Your task to perform on an android device: Go to wifi settings Image 0: 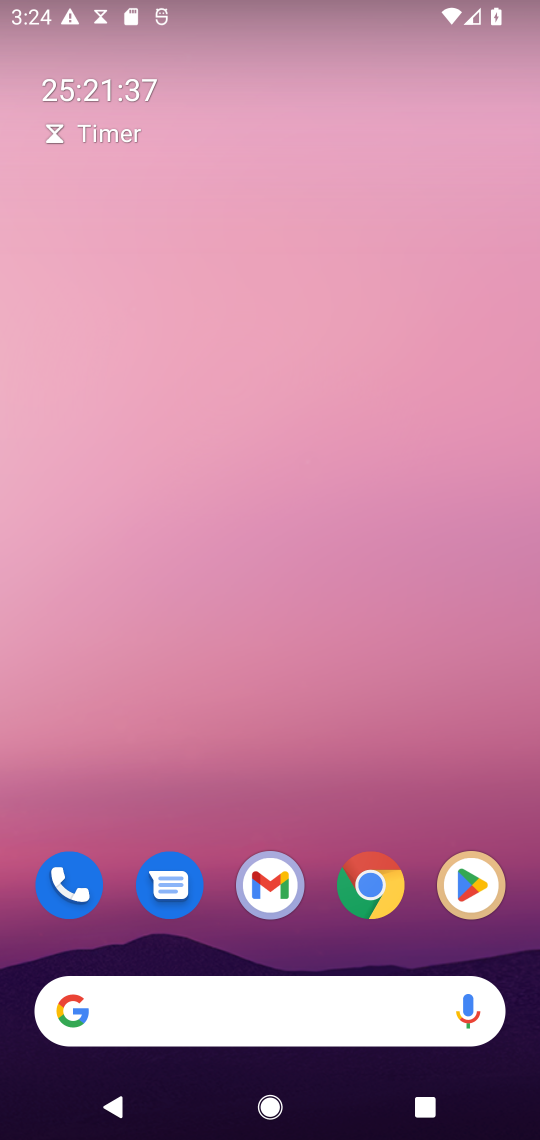
Step 0: drag from (225, 889) to (497, 36)
Your task to perform on an android device: Go to wifi settings Image 1: 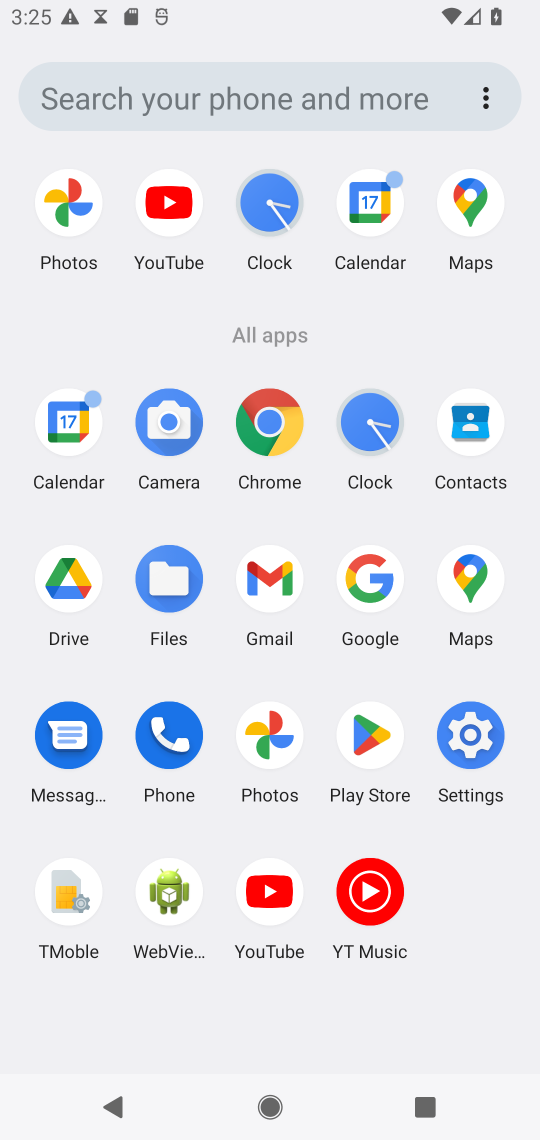
Step 1: click (451, 733)
Your task to perform on an android device: Go to wifi settings Image 2: 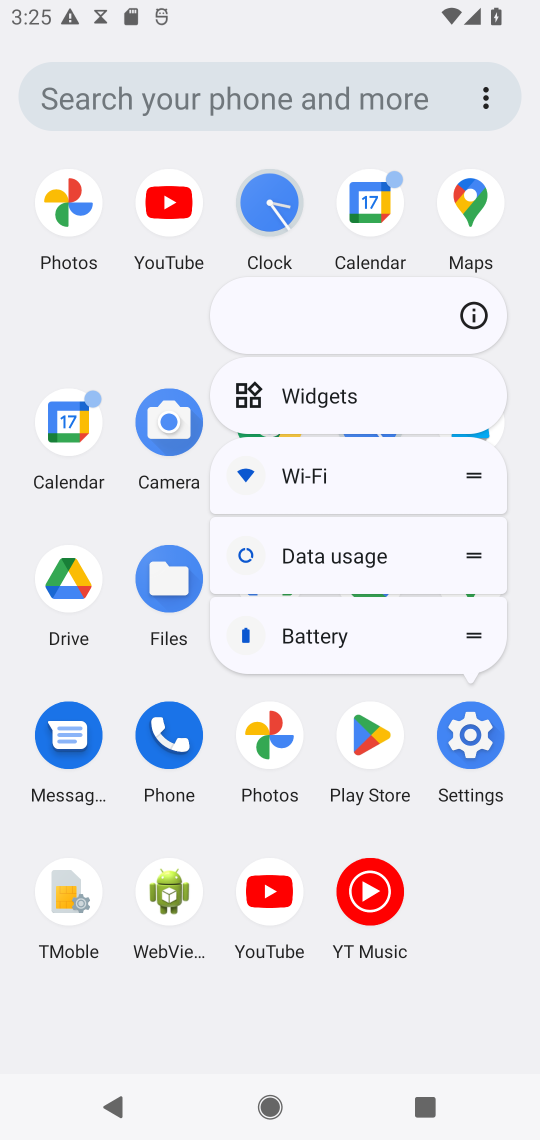
Step 2: click (457, 720)
Your task to perform on an android device: Go to wifi settings Image 3: 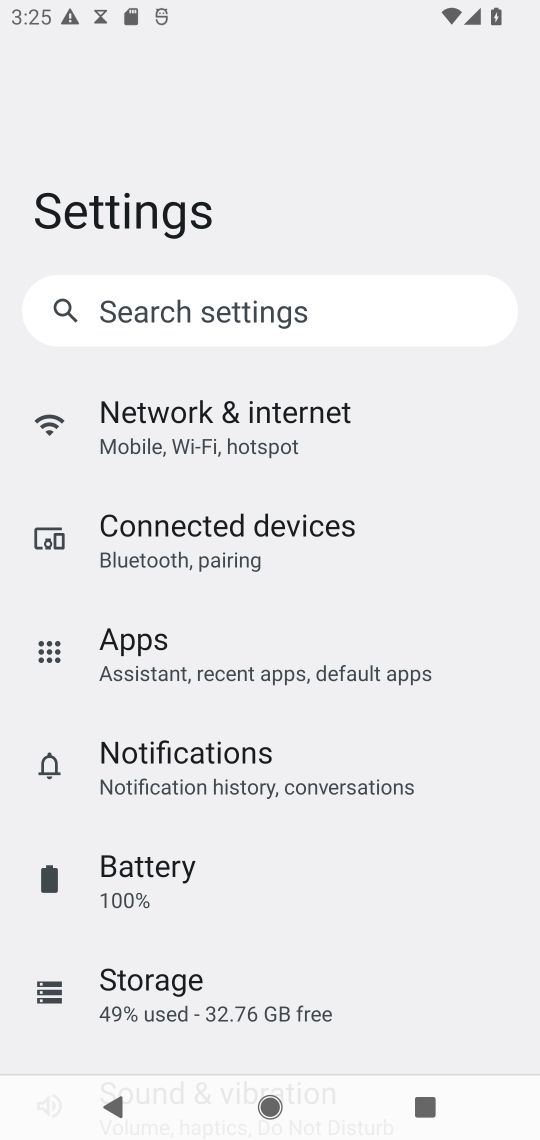
Step 3: click (137, 430)
Your task to perform on an android device: Go to wifi settings Image 4: 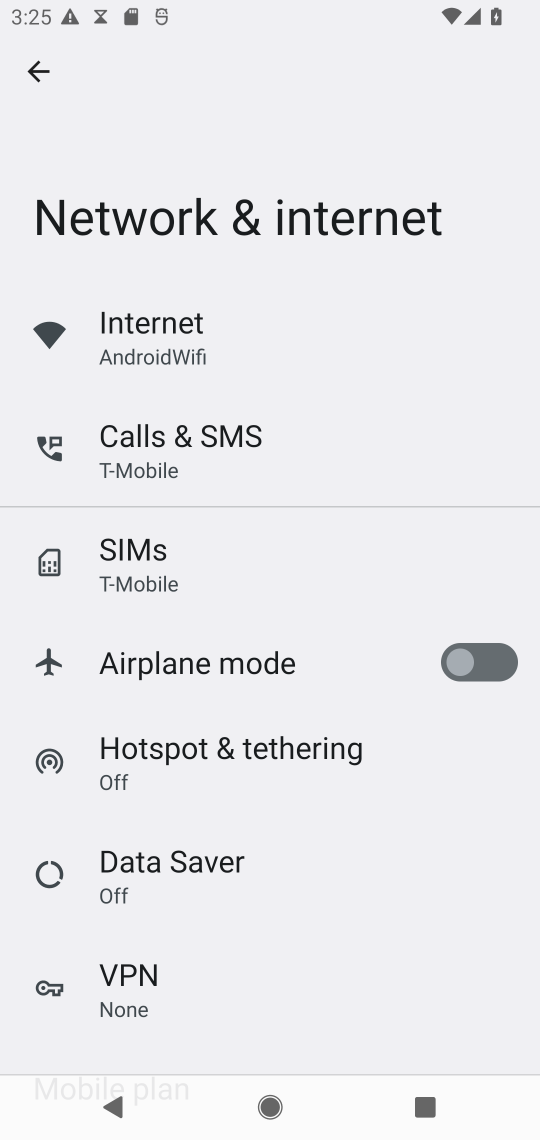
Step 4: click (189, 348)
Your task to perform on an android device: Go to wifi settings Image 5: 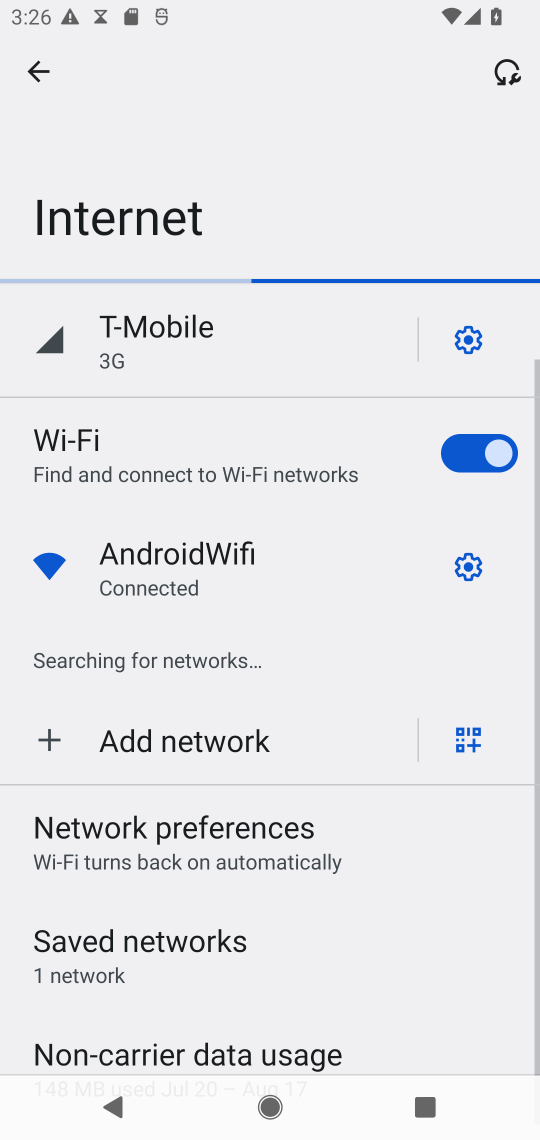
Step 5: click (179, 471)
Your task to perform on an android device: Go to wifi settings Image 6: 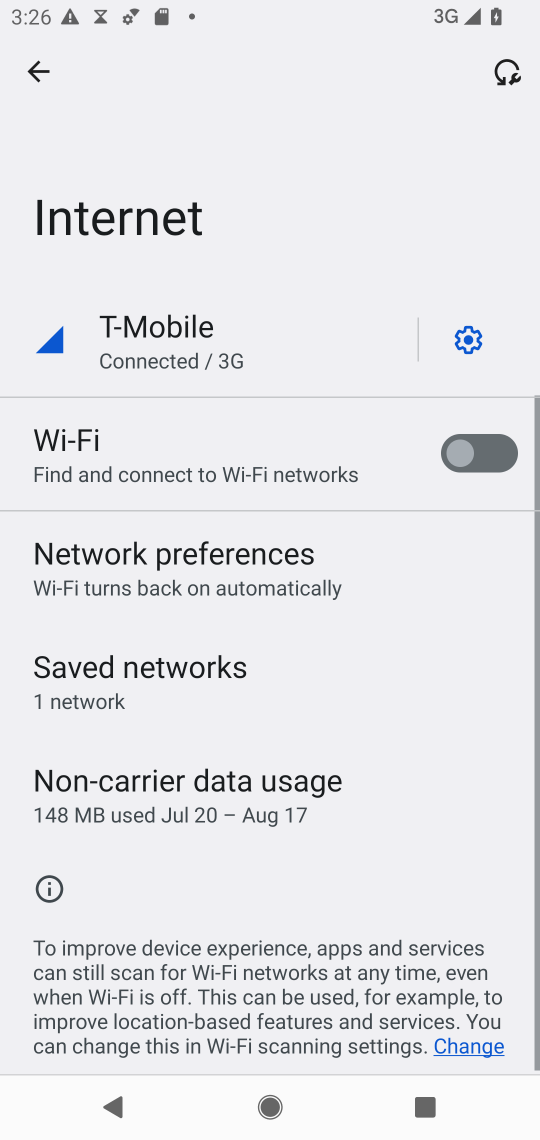
Step 6: click (181, 468)
Your task to perform on an android device: Go to wifi settings Image 7: 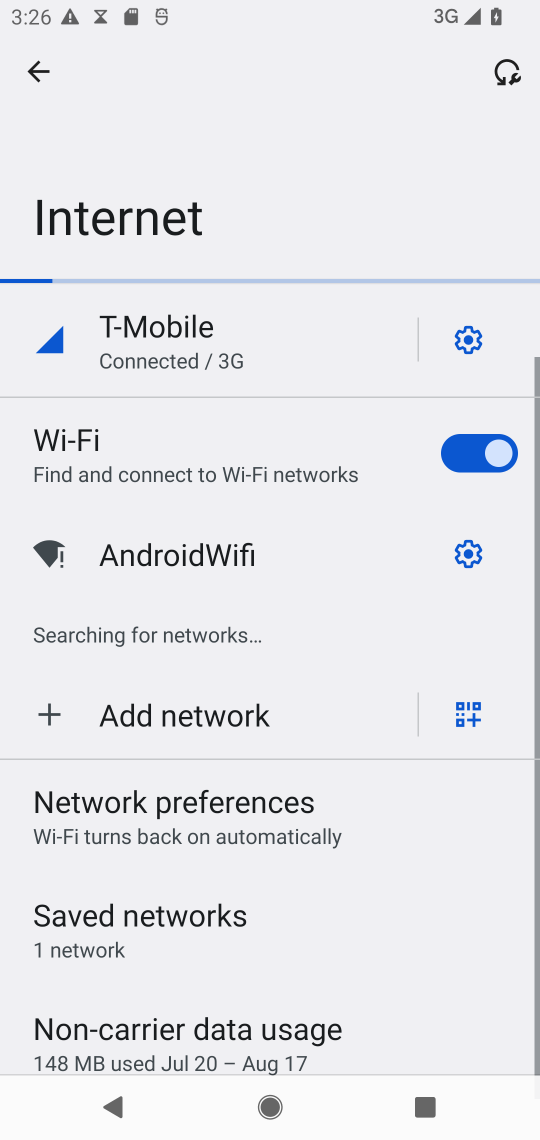
Step 7: task complete